Your task to perform on an android device: open device folders in google photos Image 0: 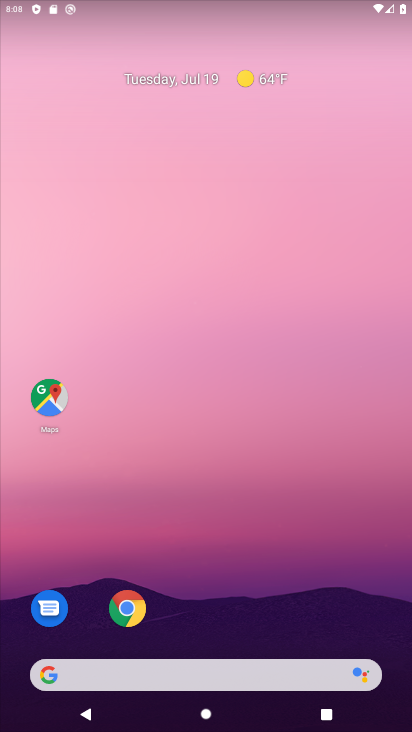
Step 0: drag from (197, 670) to (209, 159)
Your task to perform on an android device: open device folders in google photos Image 1: 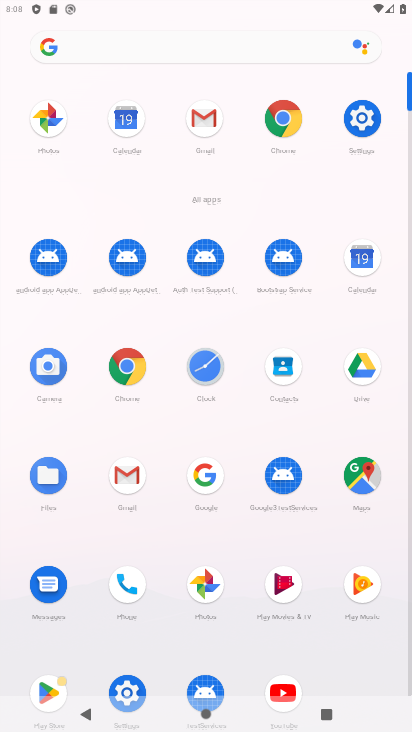
Step 1: click (207, 572)
Your task to perform on an android device: open device folders in google photos Image 2: 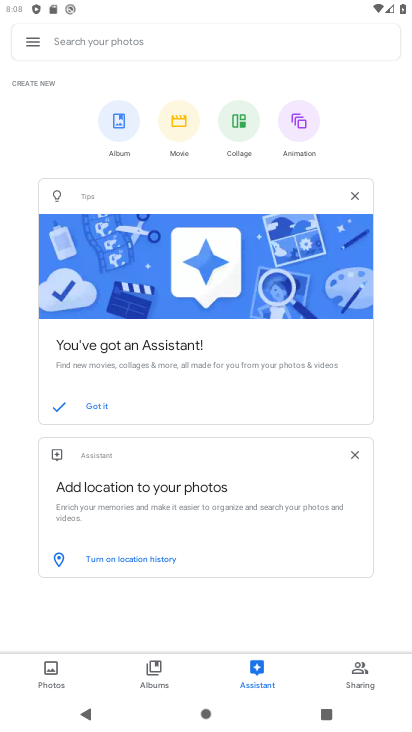
Step 2: click (156, 671)
Your task to perform on an android device: open device folders in google photos Image 3: 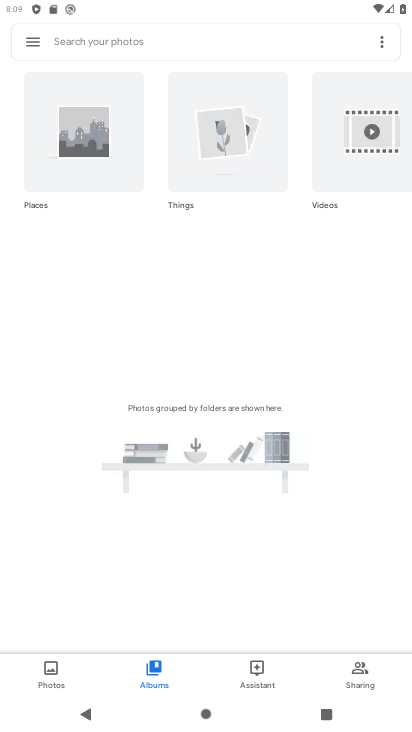
Step 3: task complete